Your task to perform on an android device: add a label to a message in the gmail app Image 0: 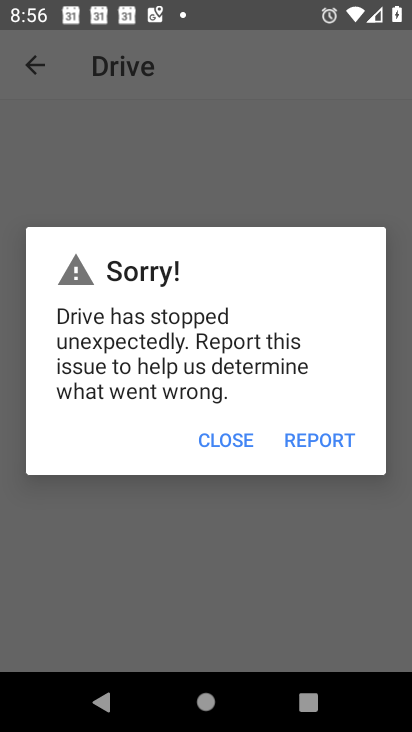
Step 0: press home button
Your task to perform on an android device: add a label to a message in the gmail app Image 1: 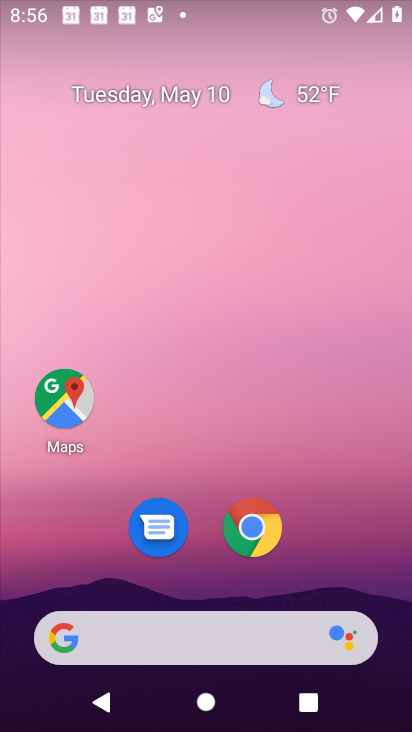
Step 1: drag from (326, 511) to (152, 183)
Your task to perform on an android device: add a label to a message in the gmail app Image 2: 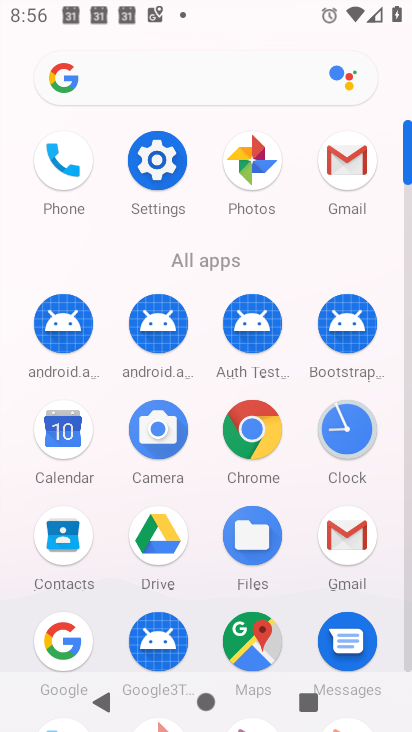
Step 2: click (354, 164)
Your task to perform on an android device: add a label to a message in the gmail app Image 3: 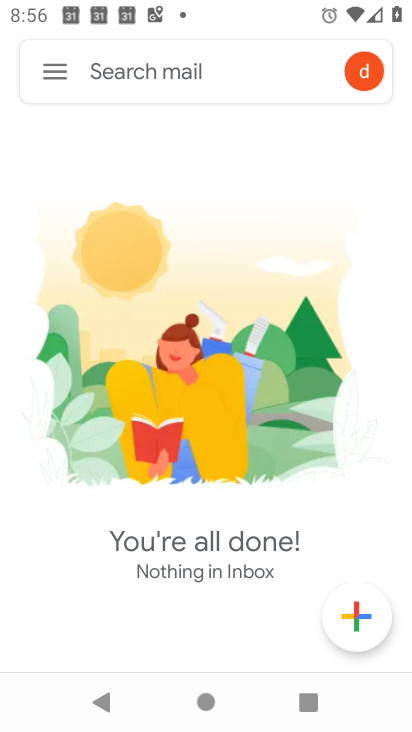
Step 3: click (64, 69)
Your task to perform on an android device: add a label to a message in the gmail app Image 4: 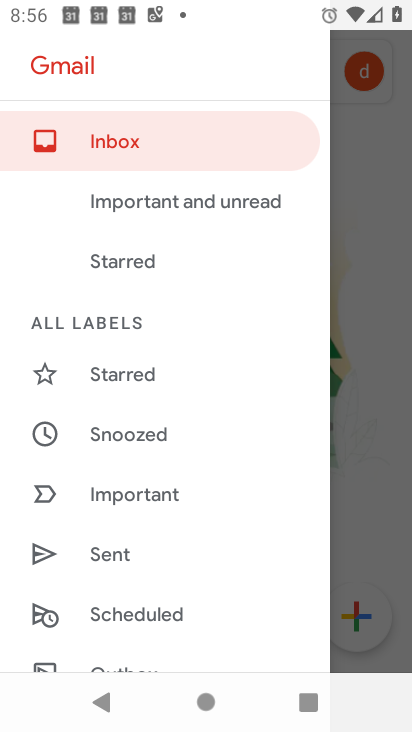
Step 4: click (353, 391)
Your task to perform on an android device: add a label to a message in the gmail app Image 5: 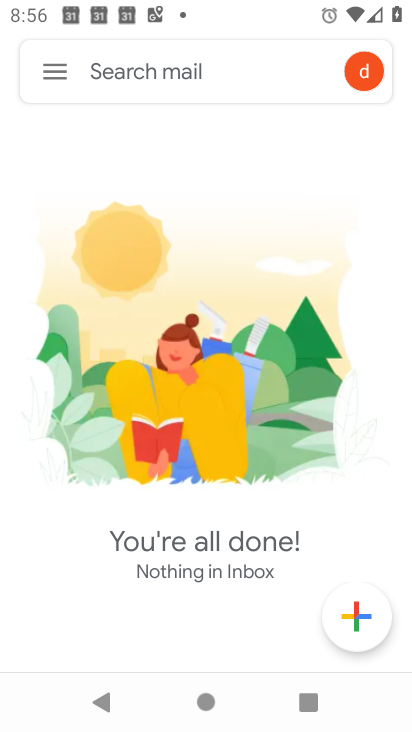
Step 5: task complete